Your task to perform on an android device: Toggle the flashlight Image 0: 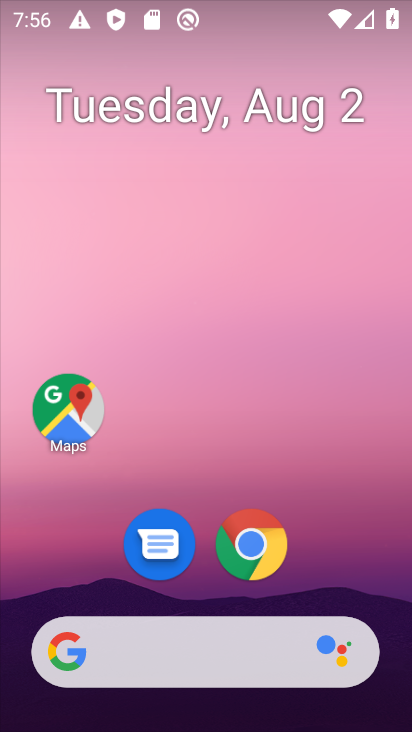
Step 0: drag from (231, 1) to (344, 444)
Your task to perform on an android device: Toggle the flashlight Image 1: 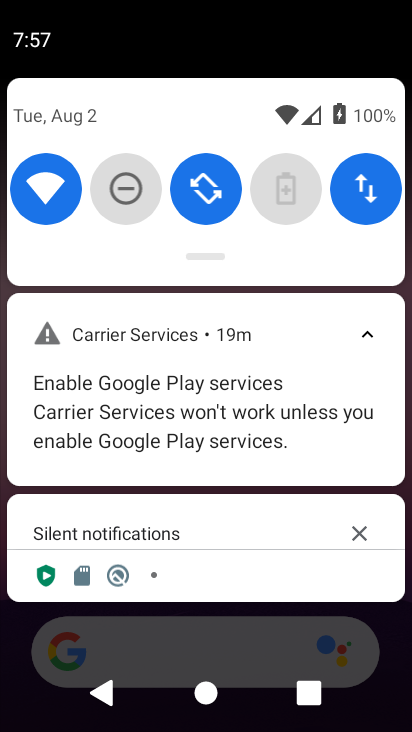
Step 1: drag from (214, 184) to (296, 456)
Your task to perform on an android device: Toggle the flashlight Image 2: 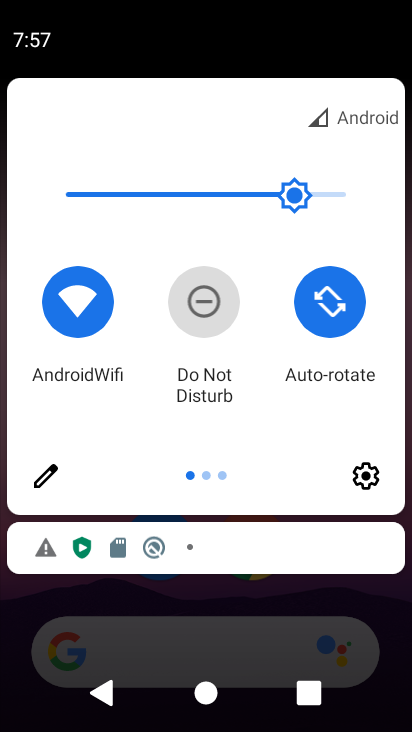
Step 2: drag from (295, 252) to (1, 342)
Your task to perform on an android device: Toggle the flashlight Image 3: 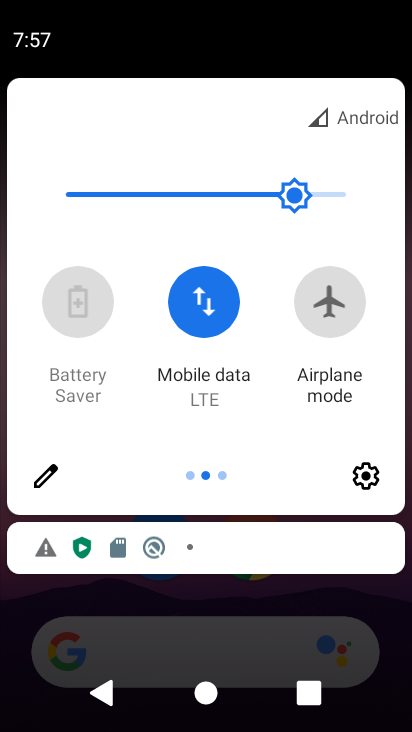
Step 3: drag from (286, 264) to (34, 336)
Your task to perform on an android device: Toggle the flashlight Image 4: 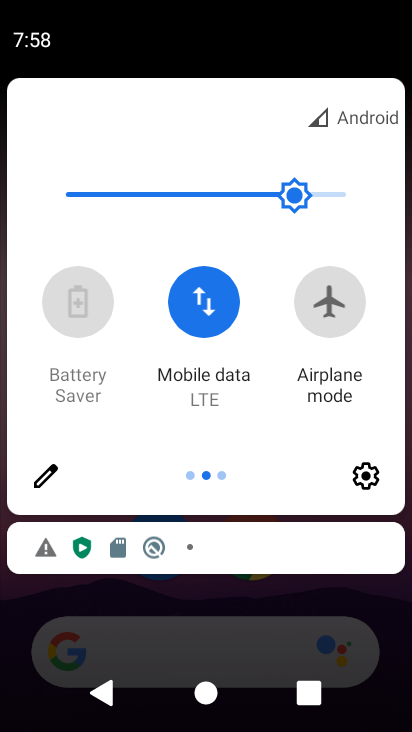
Step 4: drag from (285, 419) to (2, 482)
Your task to perform on an android device: Toggle the flashlight Image 5: 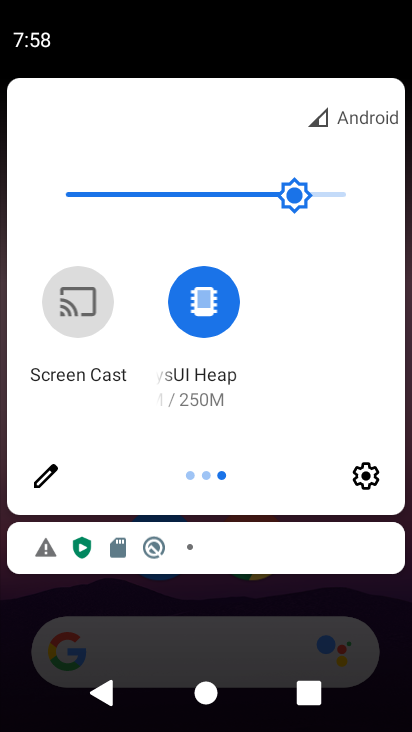
Step 5: click (28, 482)
Your task to perform on an android device: Toggle the flashlight Image 6: 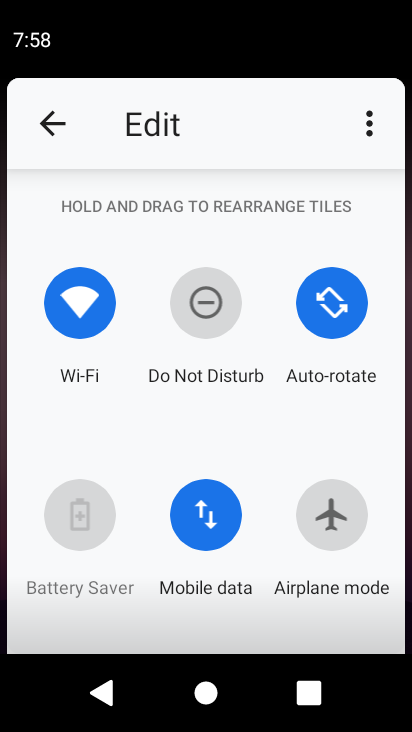
Step 6: task complete